Your task to perform on an android device: change the clock style Image 0: 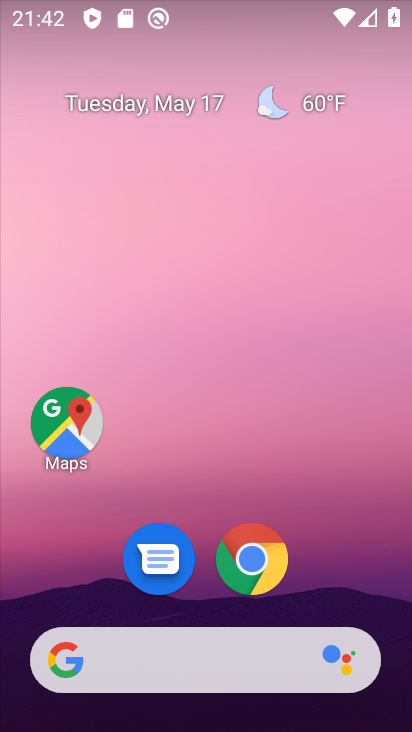
Step 0: drag from (296, 609) to (299, 181)
Your task to perform on an android device: change the clock style Image 1: 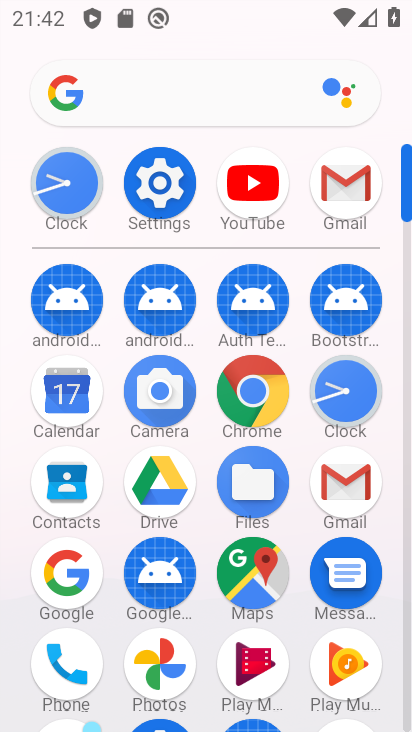
Step 1: click (357, 389)
Your task to perform on an android device: change the clock style Image 2: 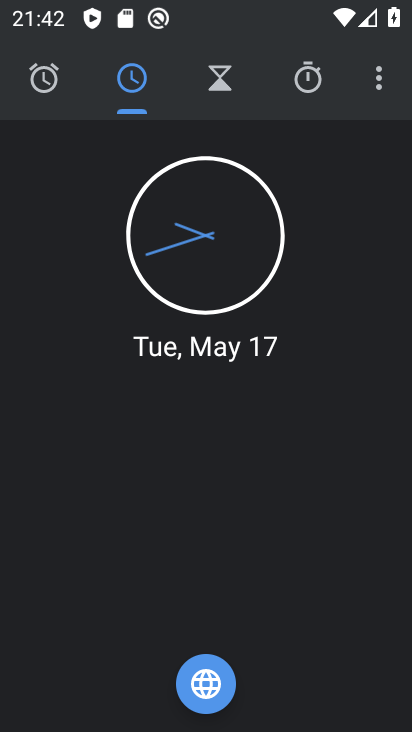
Step 2: click (374, 73)
Your task to perform on an android device: change the clock style Image 3: 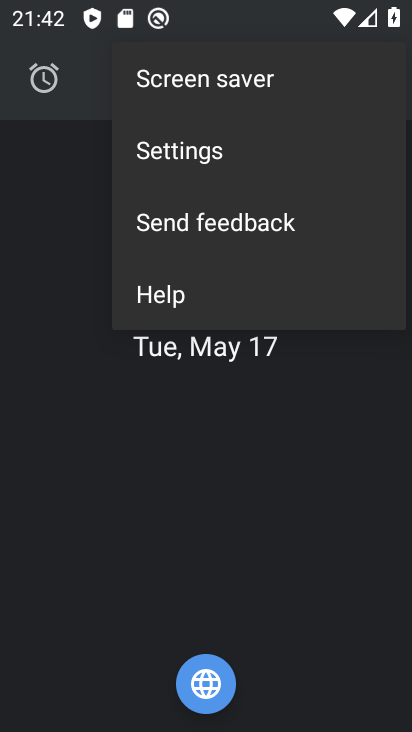
Step 3: click (220, 148)
Your task to perform on an android device: change the clock style Image 4: 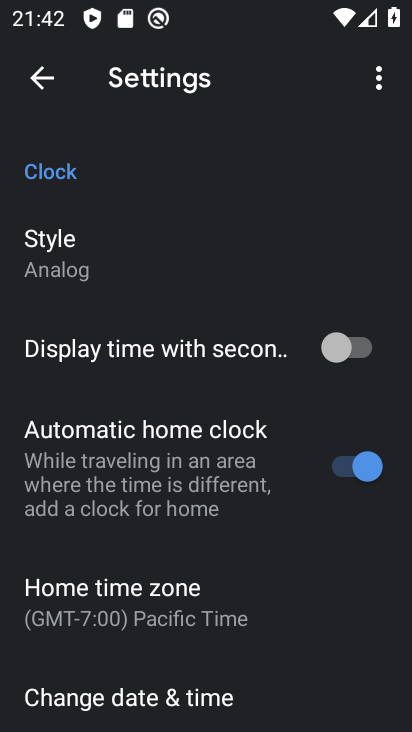
Step 4: click (87, 238)
Your task to perform on an android device: change the clock style Image 5: 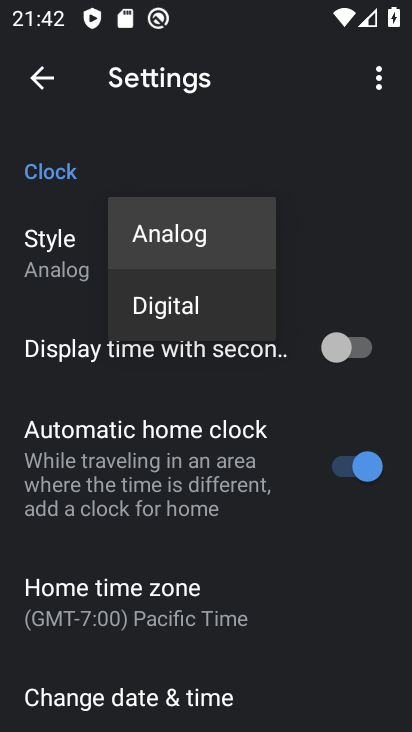
Step 5: click (144, 298)
Your task to perform on an android device: change the clock style Image 6: 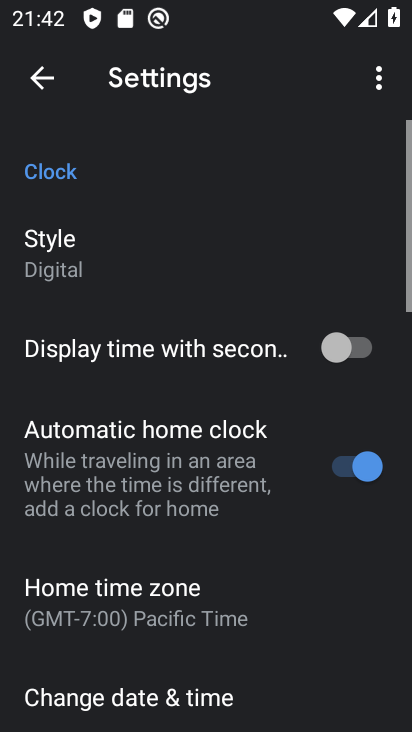
Step 6: task complete